Your task to perform on an android device: open sync settings in chrome Image 0: 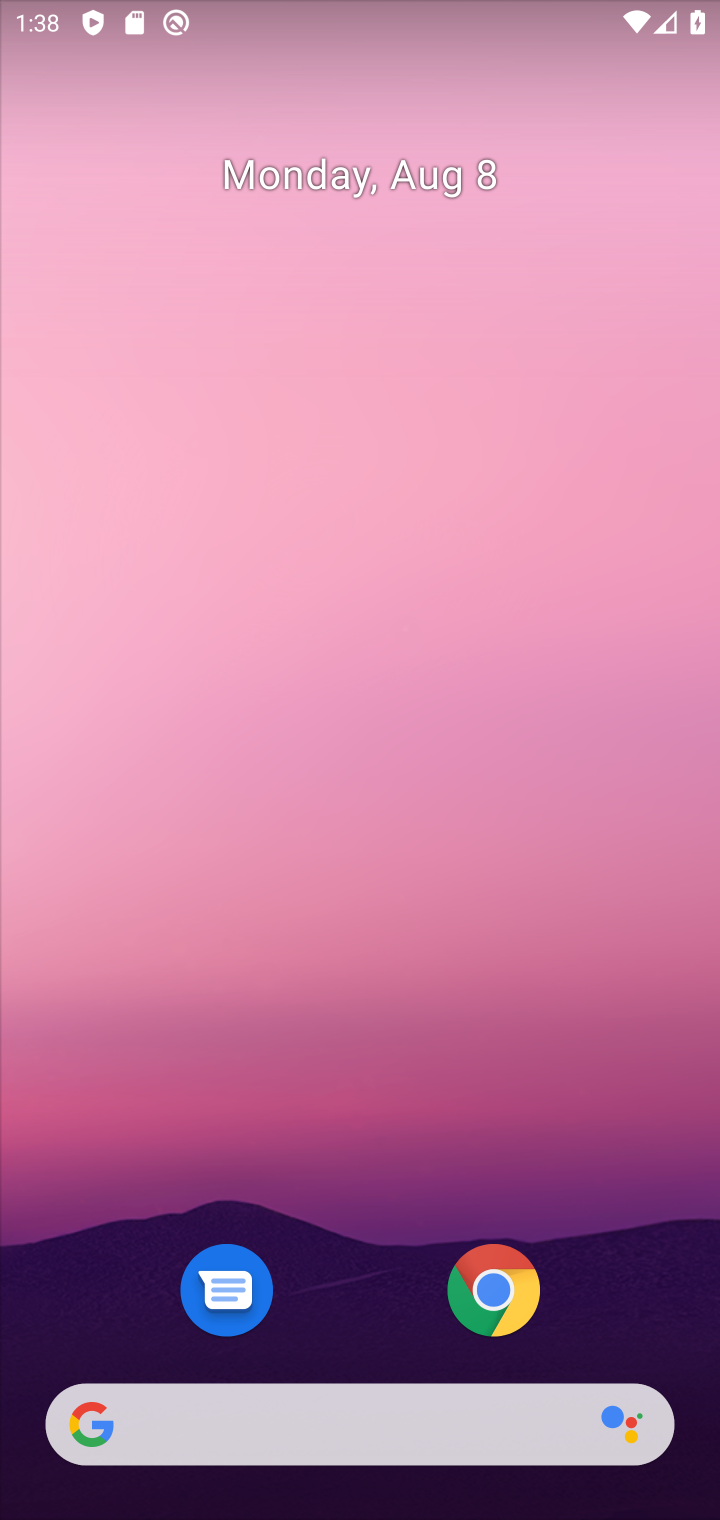
Step 0: click (493, 1296)
Your task to perform on an android device: open sync settings in chrome Image 1: 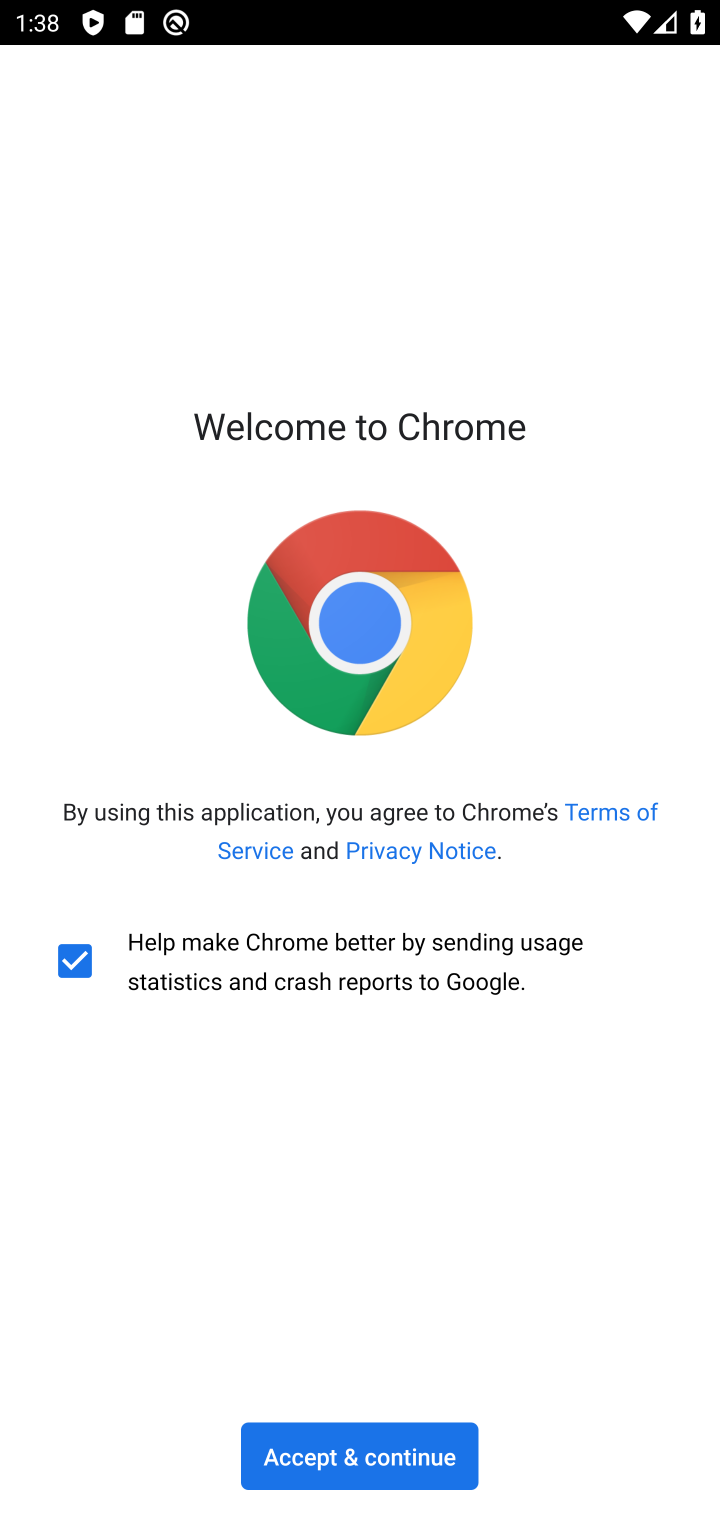
Step 1: click (333, 1452)
Your task to perform on an android device: open sync settings in chrome Image 2: 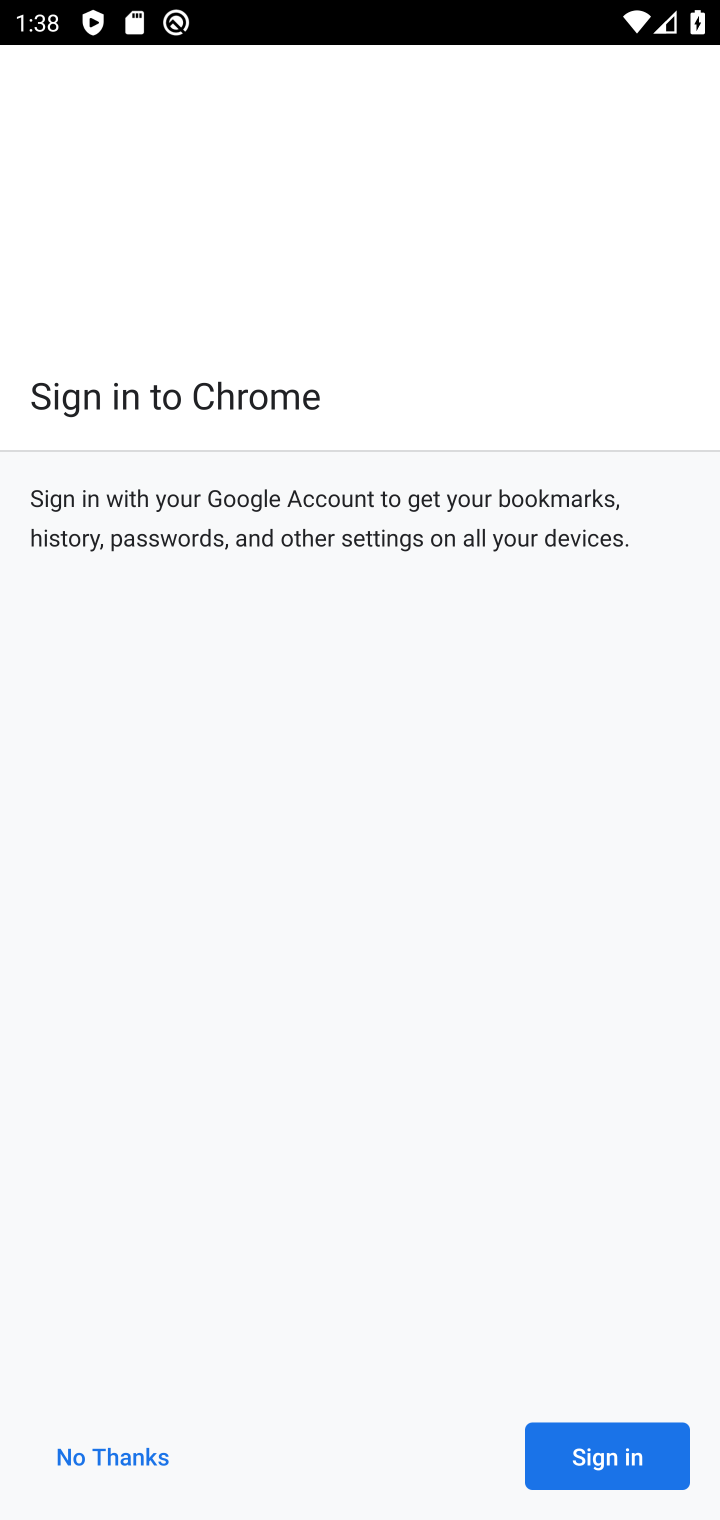
Step 2: click (116, 1464)
Your task to perform on an android device: open sync settings in chrome Image 3: 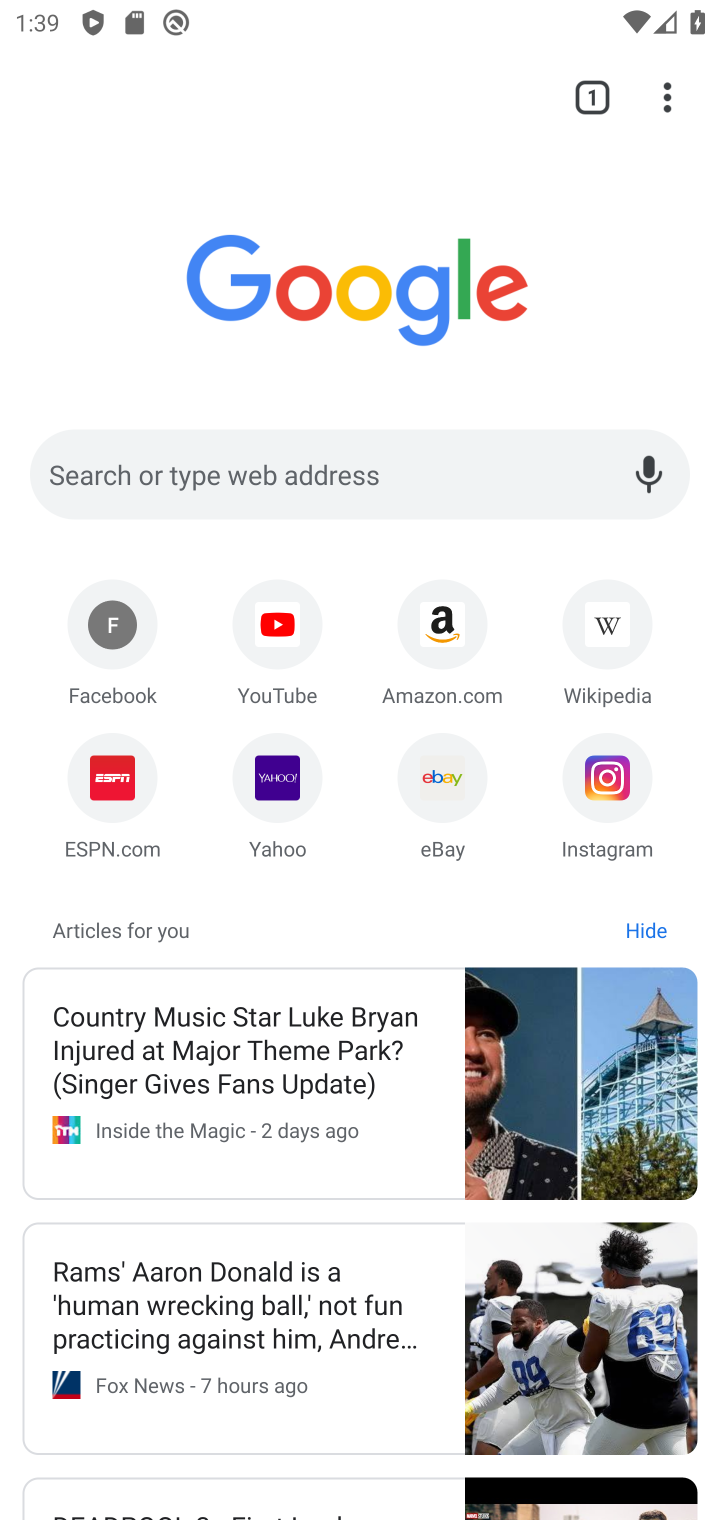
Step 3: click (666, 99)
Your task to perform on an android device: open sync settings in chrome Image 4: 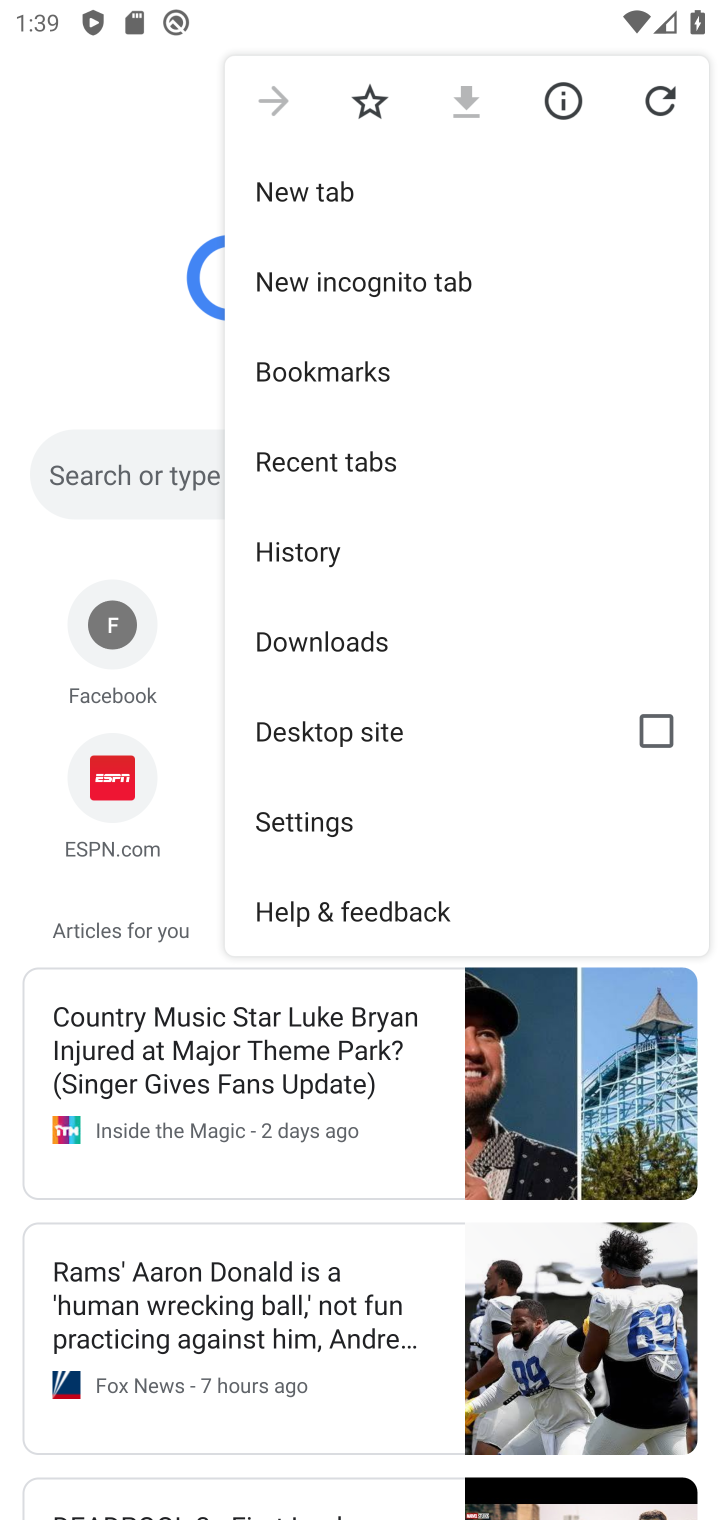
Step 4: click (306, 816)
Your task to perform on an android device: open sync settings in chrome Image 5: 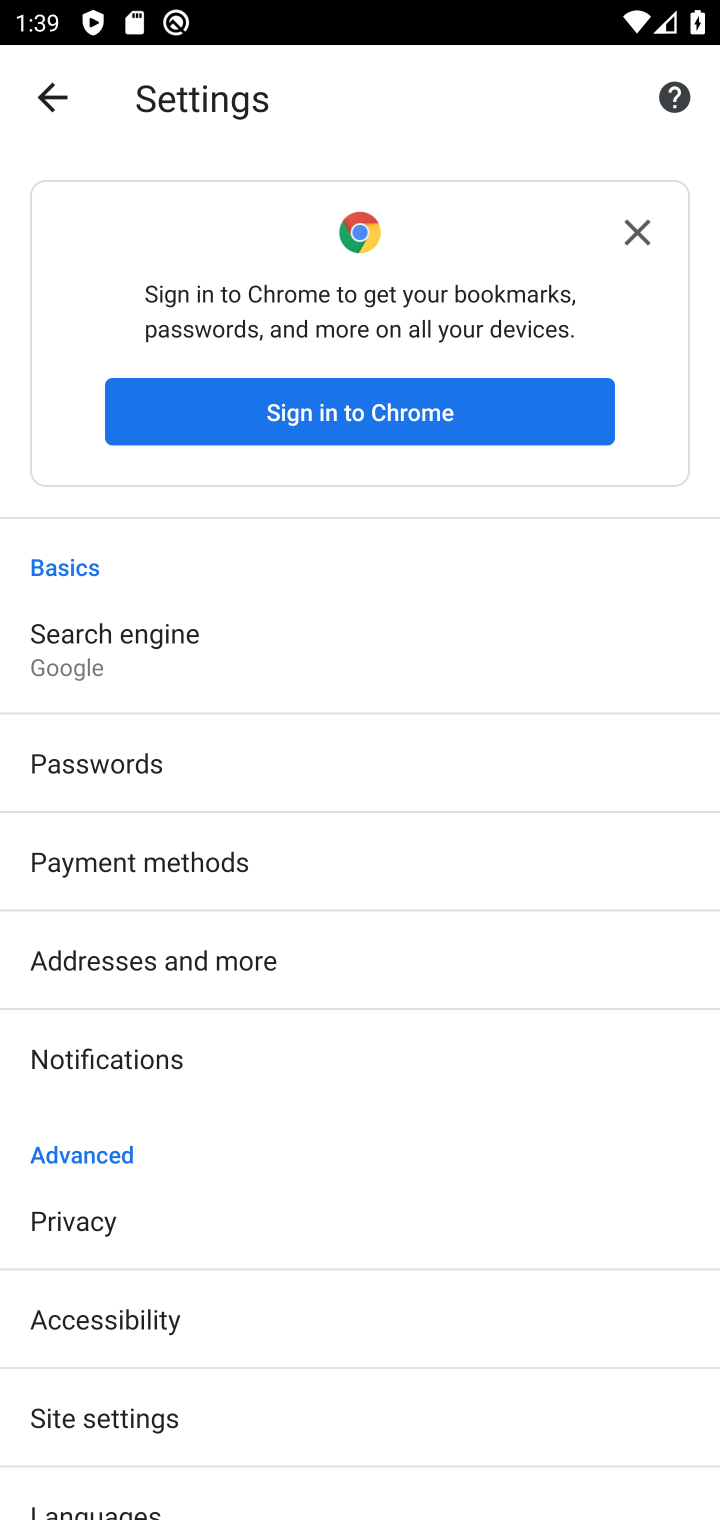
Step 5: drag from (151, 833) to (227, 689)
Your task to perform on an android device: open sync settings in chrome Image 6: 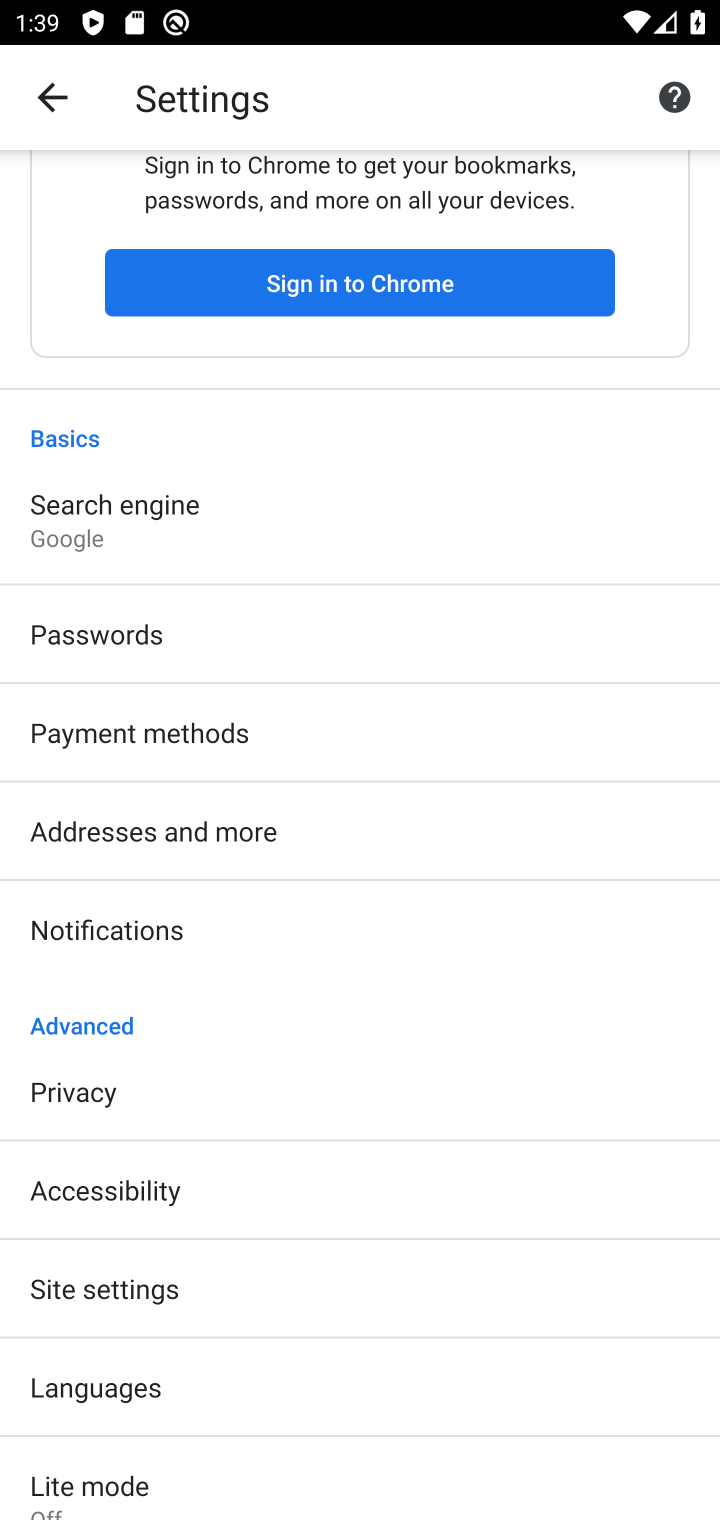
Step 6: drag from (213, 943) to (279, 777)
Your task to perform on an android device: open sync settings in chrome Image 7: 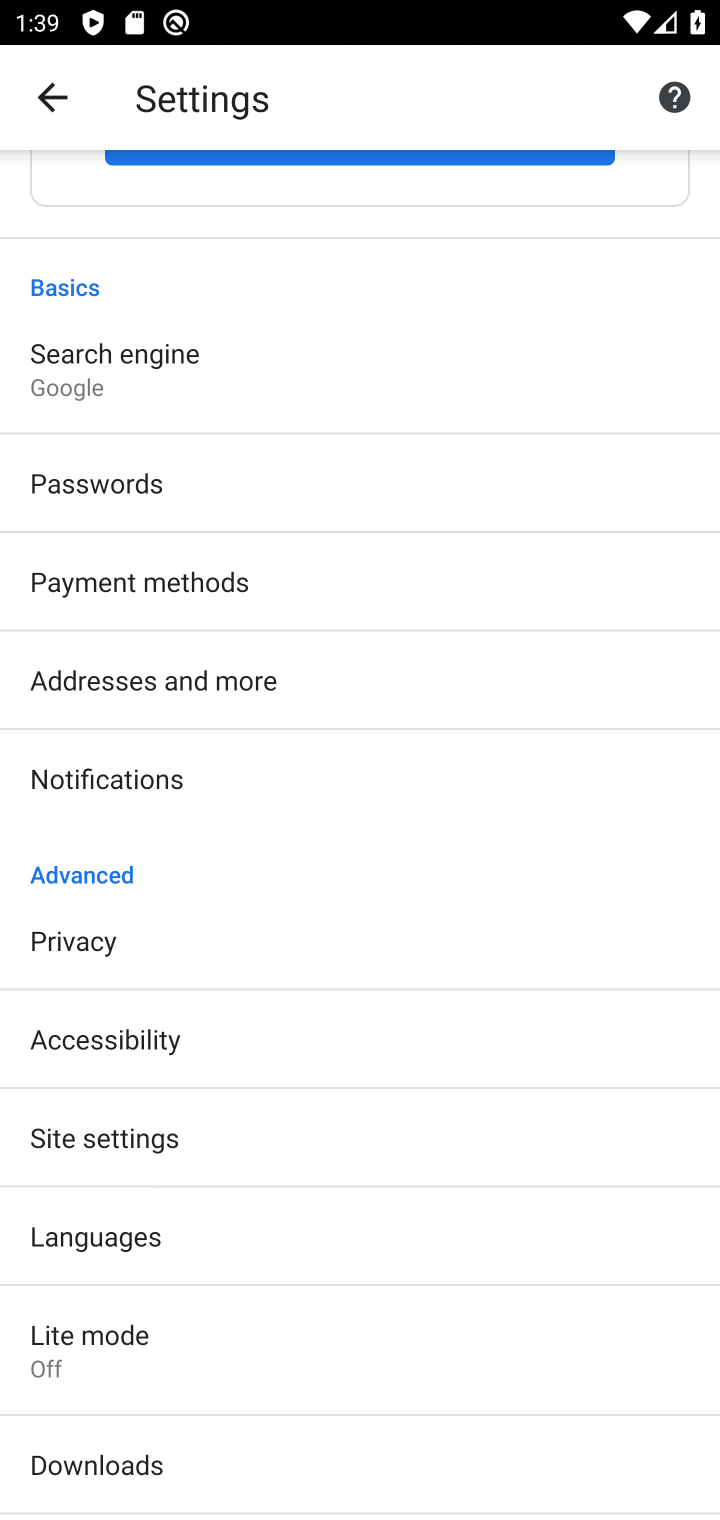
Step 7: drag from (208, 933) to (289, 743)
Your task to perform on an android device: open sync settings in chrome Image 8: 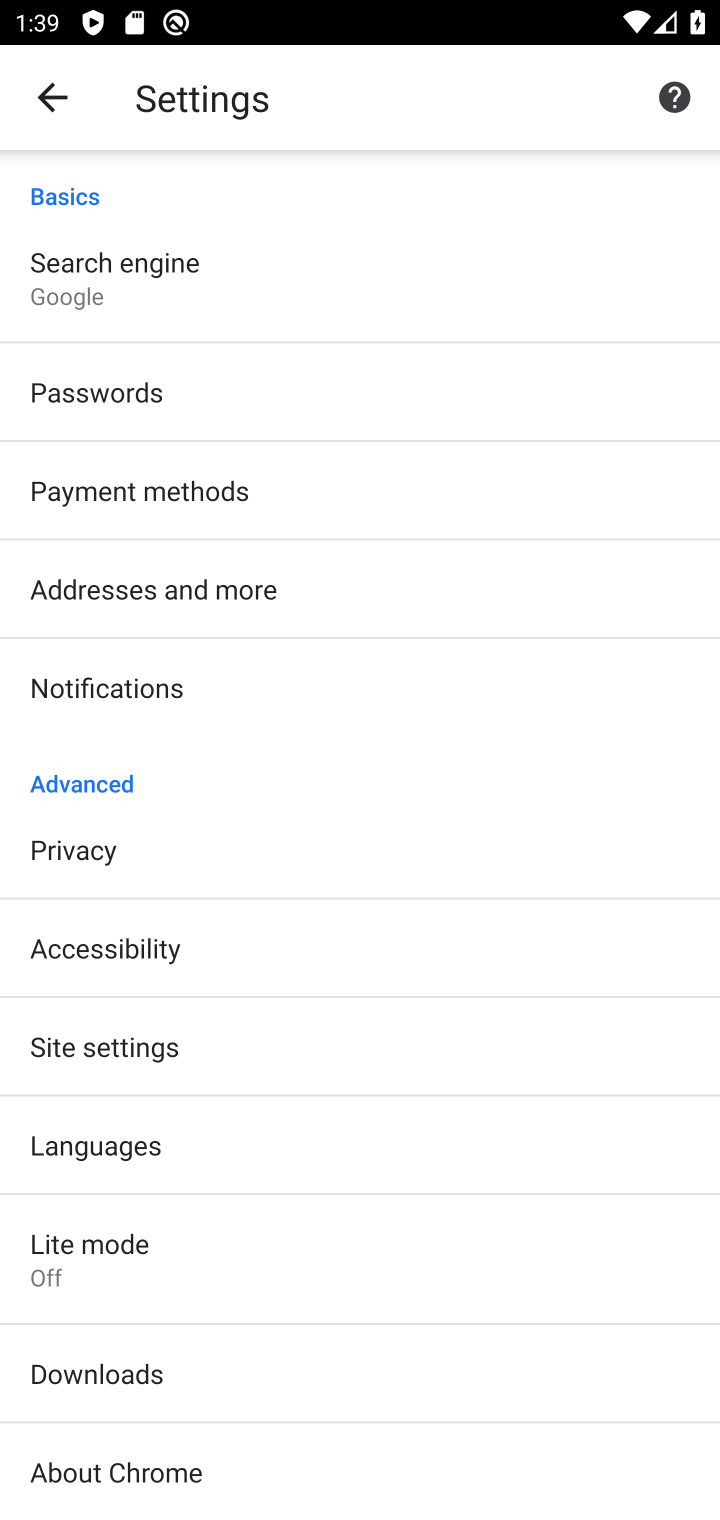
Step 8: click (95, 1037)
Your task to perform on an android device: open sync settings in chrome Image 9: 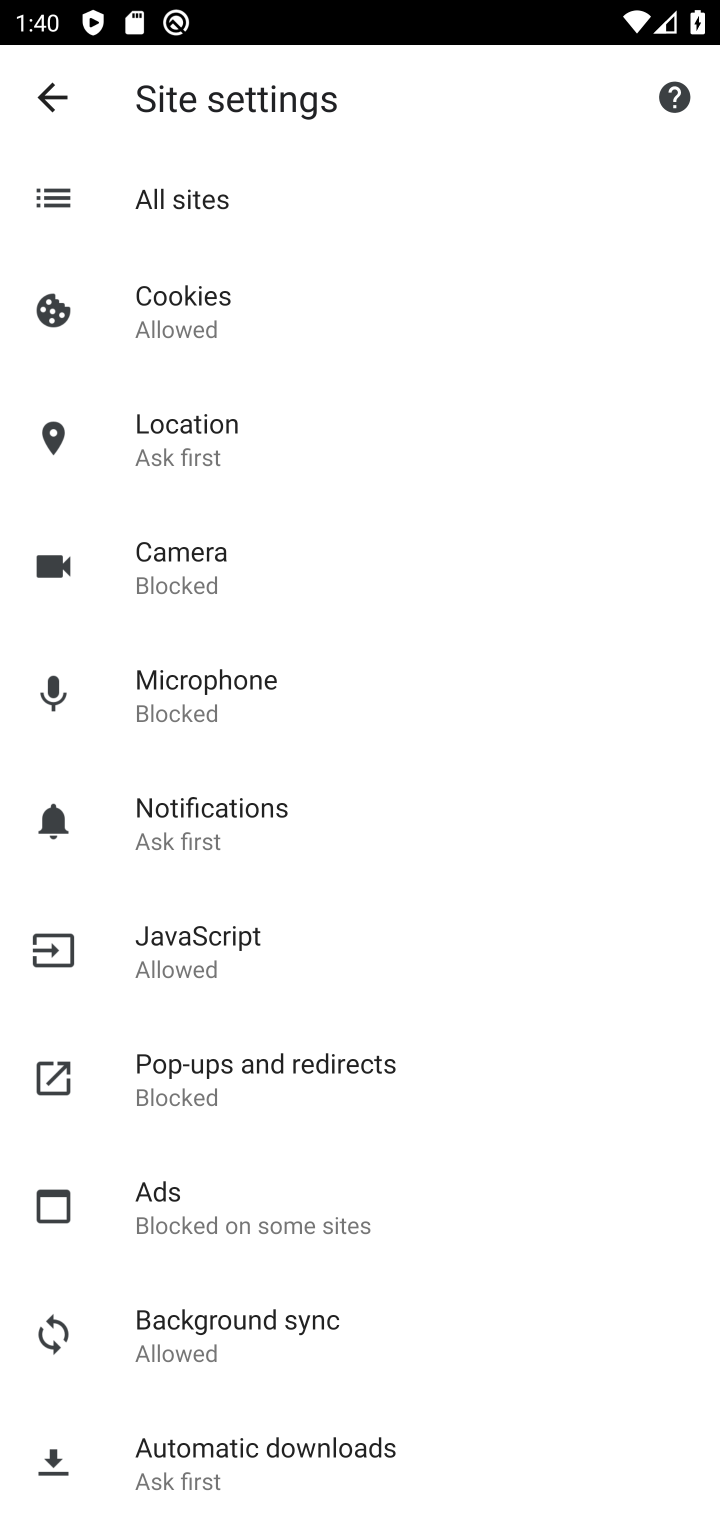
Step 9: drag from (170, 1287) to (370, 942)
Your task to perform on an android device: open sync settings in chrome Image 10: 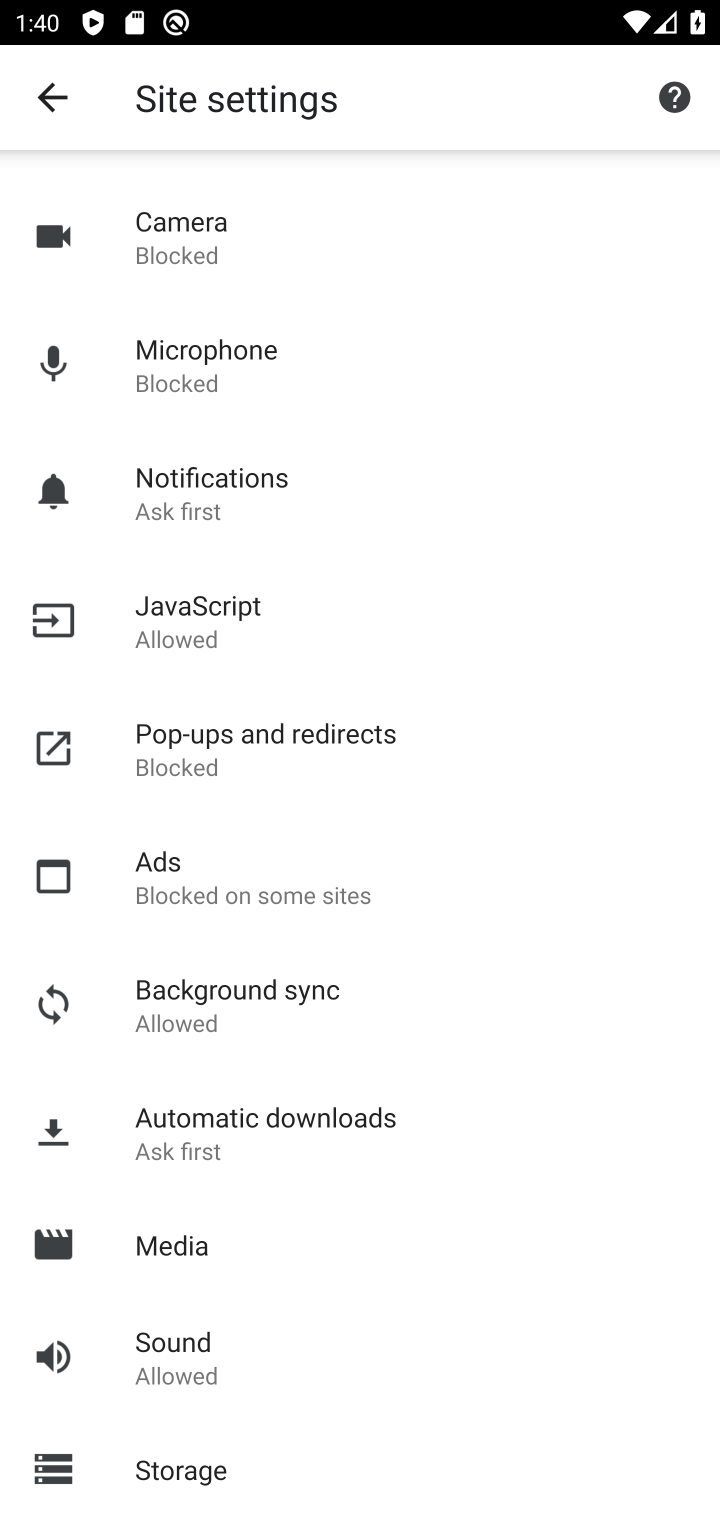
Step 10: drag from (287, 1375) to (361, 1041)
Your task to perform on an android device: open sync settings in chrome Image 11: 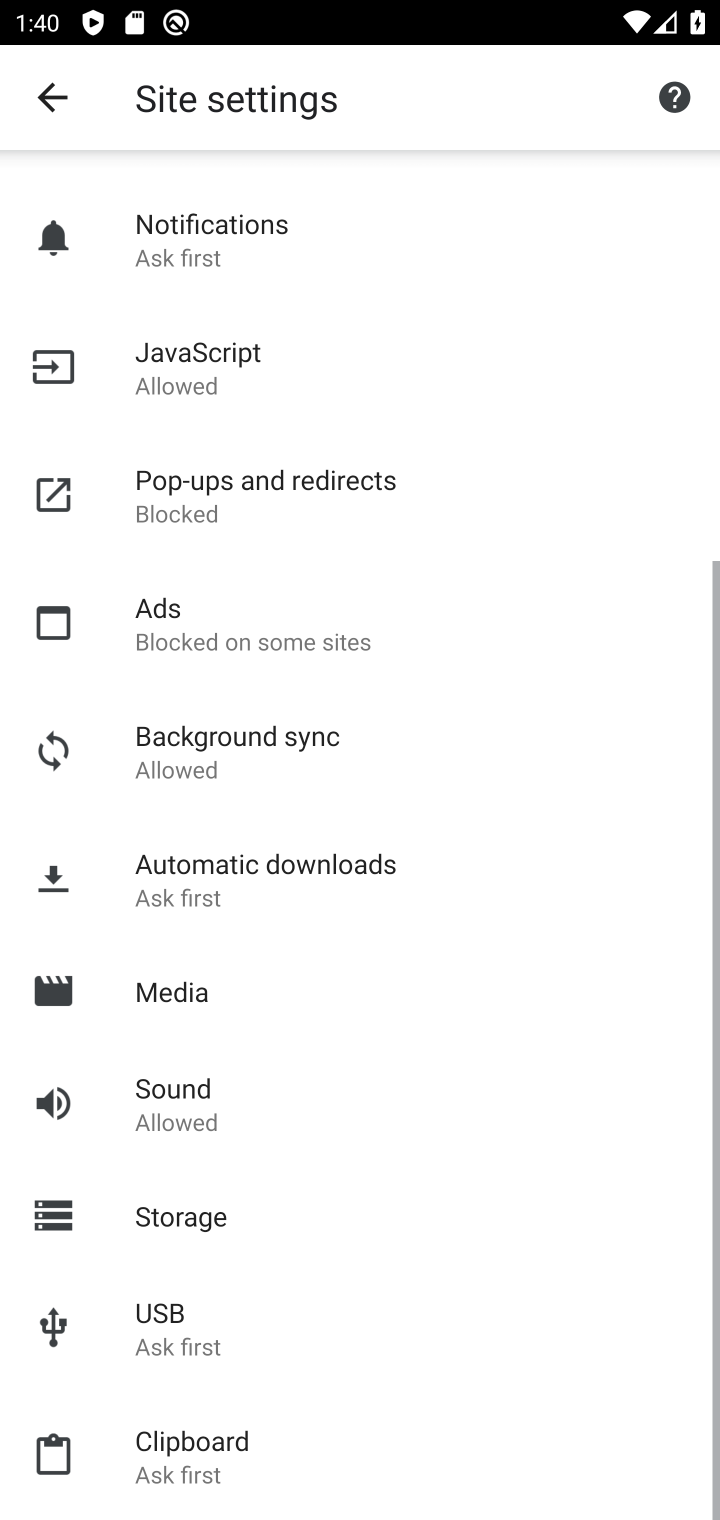
Step 11: drag from (282, 1366) to (375, 1055)
Your task to perform on an android device: open sync settings in chrome Image 12: 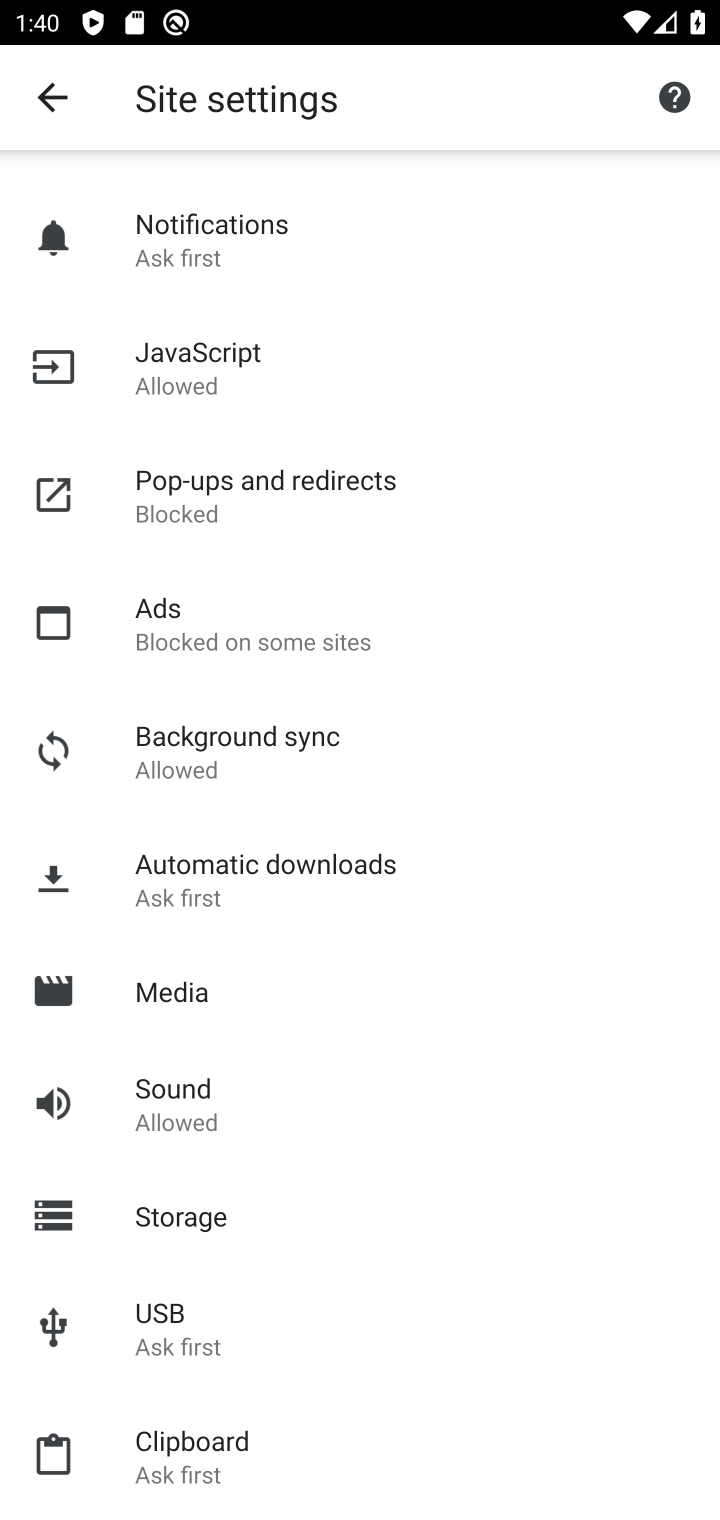
Step 12: click (264, 783)
Your task to perform on an android device: open sync settings in chrome Image 13: 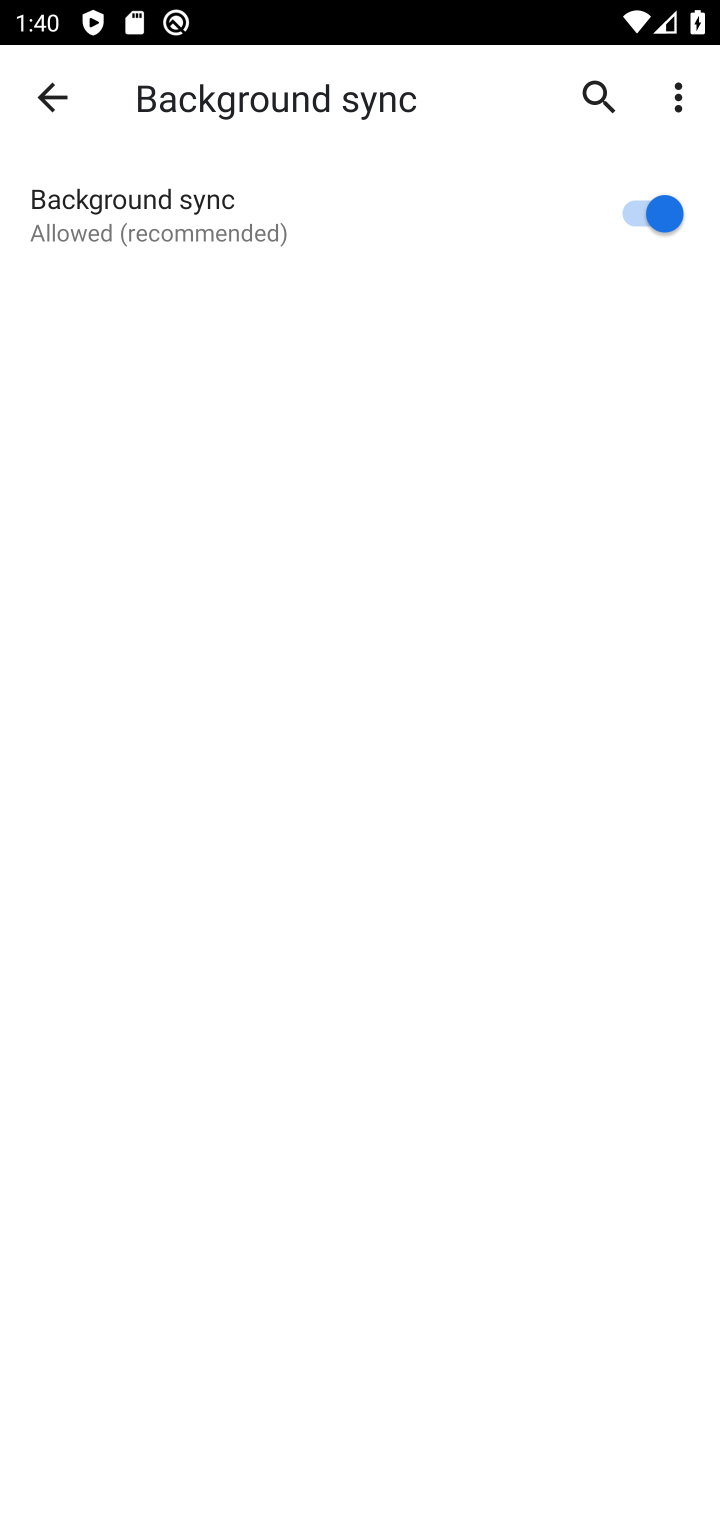
Step 13: task complete